Your task to perform on an android device: turn smart compose on in the gmail app Image 0: 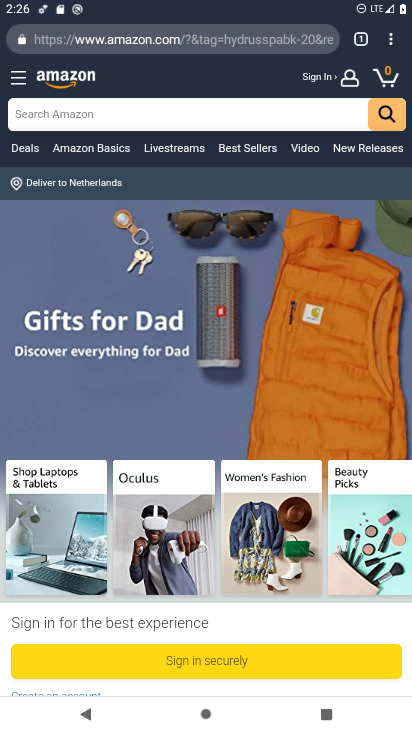
Step 0: press home button
Your task to perform on an android device: turn smart compose on in the gmail app Image 1: 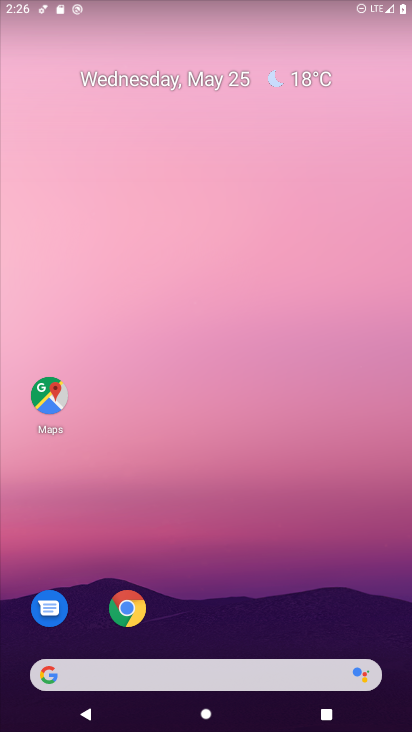
Step 1: drag from (373, 609) to (310, 88)
Your task to perform on an android device: turn smart compose on in the gmail app Image 2: 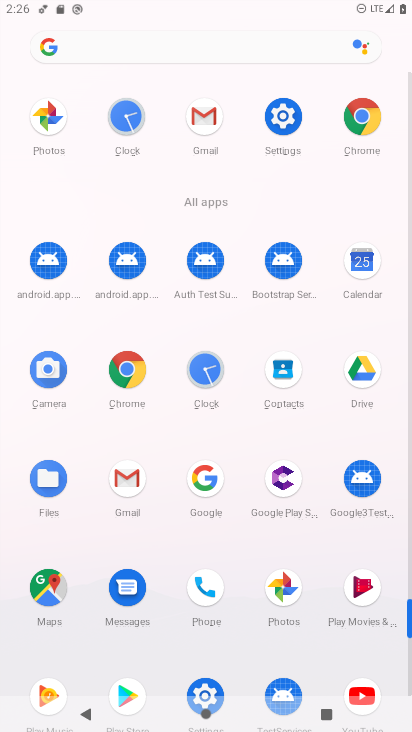
Step 2: click (123, 478)
Your task to perform on an android device: turn smart compose on in the gmail app Image 3: 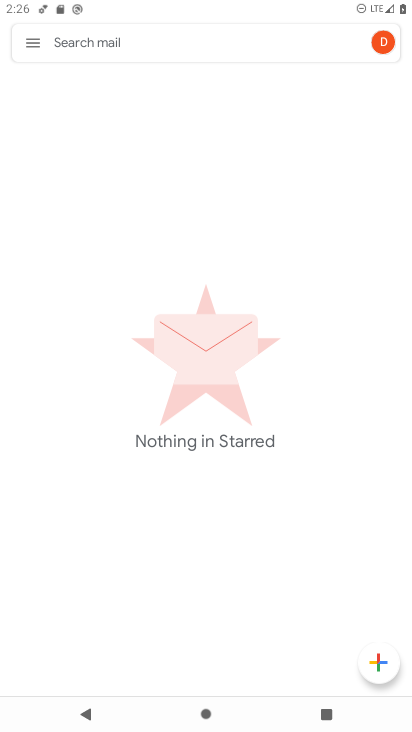
Step 3: click (26, 42)
Your task to perform on an android device: turn smart compose on in the gmail app Image 4: 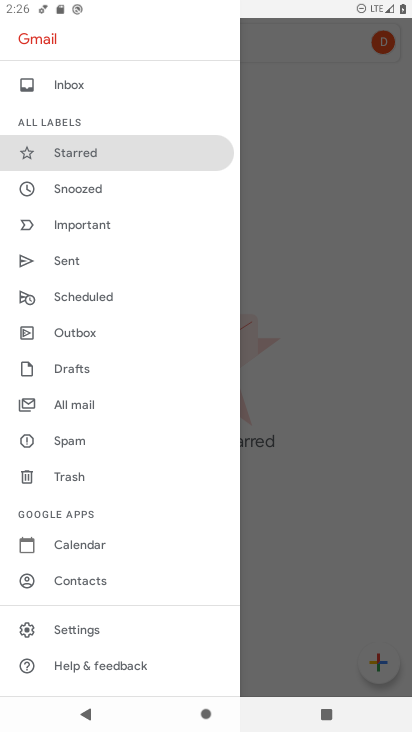
Step 4: click (69, 623)
Your task to perform on an android device: turn smart compose on in the gmail app Image 5: 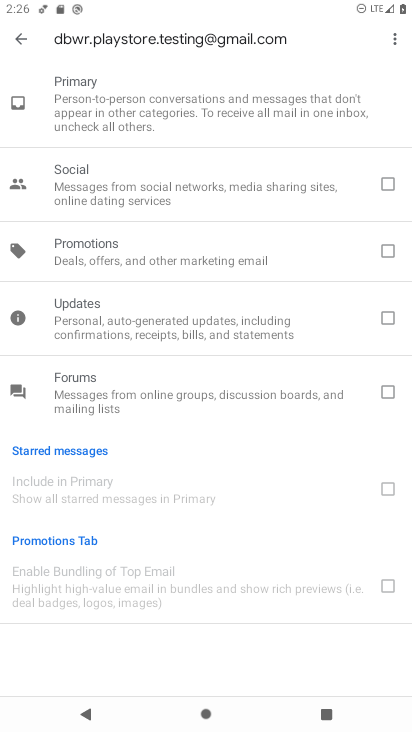
Step 5: task complete